Your task to perform on an android device: Open privacy settings Image 0: 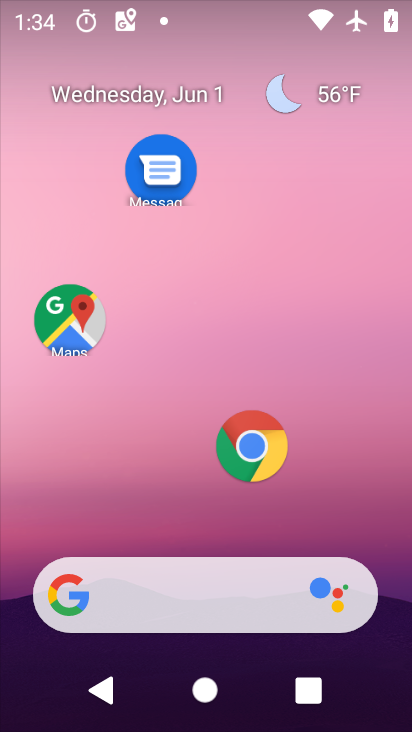
Step 0: drag from (212, 520) to (227, 166)
Your task to perform on an android device: Open privacy settings Image 1: 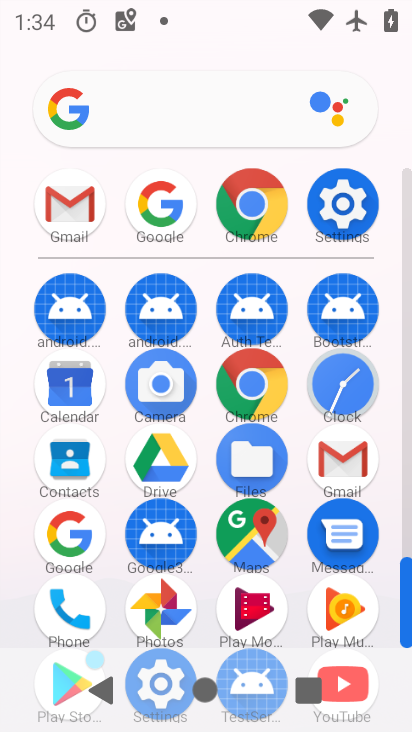
Step 1: drag from (201, 267) to (195, 121)
Your task to perform on an android device: Open privacy settings Image 2: 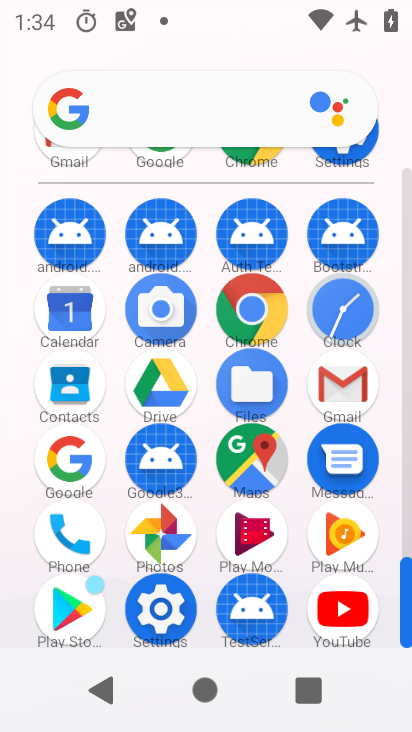
Step 2: click (172, 619)
Your task to perform on an android device: Open privacy settings Image 3: 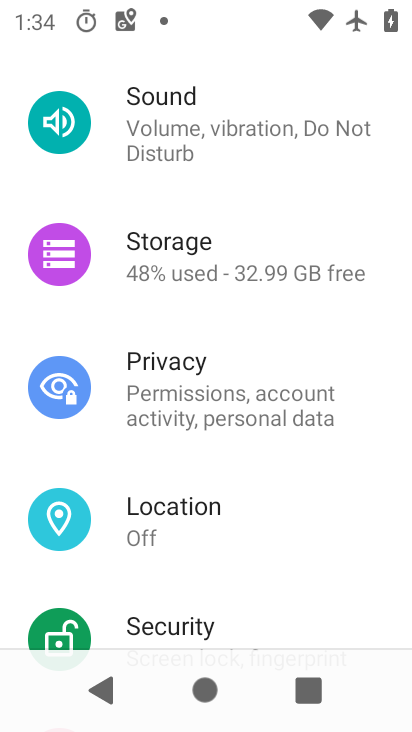
Step 3: click (219, 427)
Your task to perform on an android device: Open privacy settings Image 4: 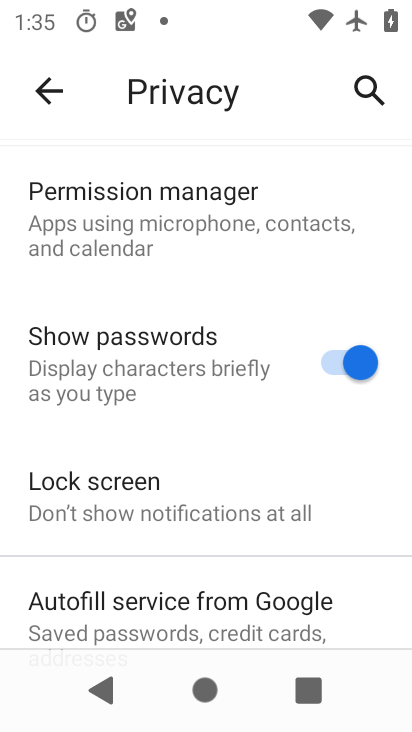
Step 4: task complete